Your task to perform on an android device: turn off improve location accuracy Image 0: 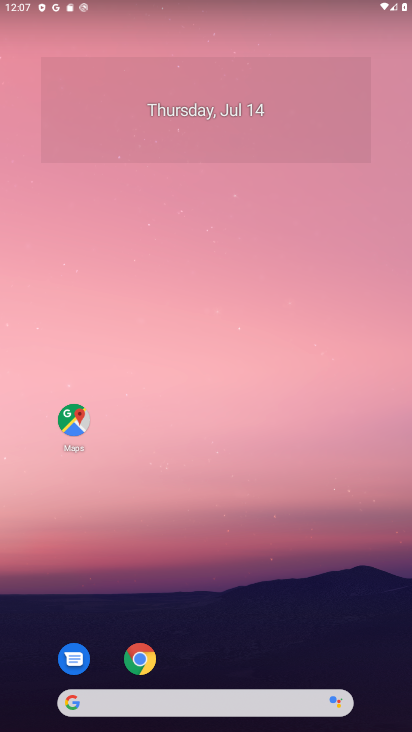
Step 0: drag from (33, 710) to (217, 172)
Your task to perform on an android device: turn off improve location accuracy Image 1: 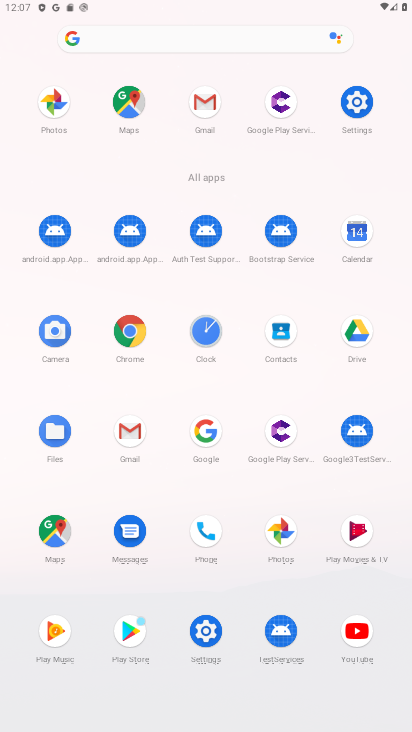
Step 1: click (207, 630)
Your task to perform on an android device: turn off improve location accuracy Image 2: 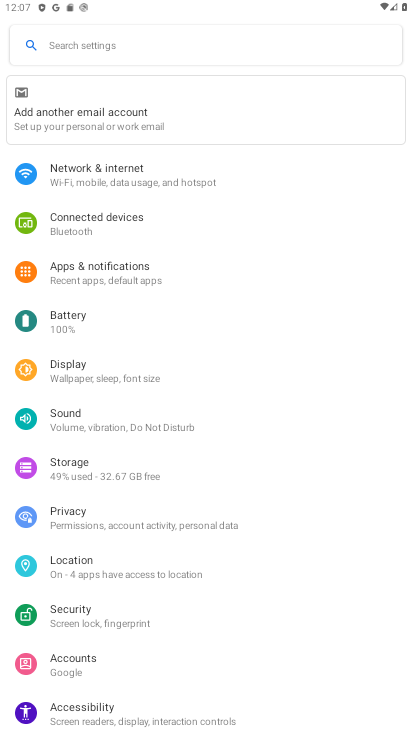
Step 2: click (90, 567)
Your task to perform on an android device: turn off improve location accuracy Image 3: 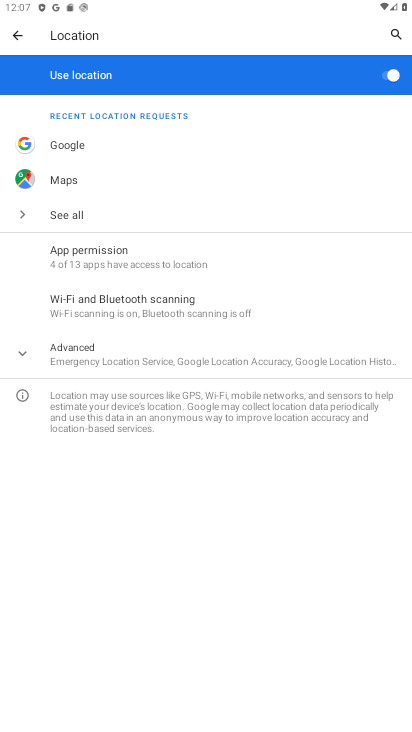
Step 3: click (62, 338)
Your task to perform on an android device: turn off improve location accuracy Image 4: 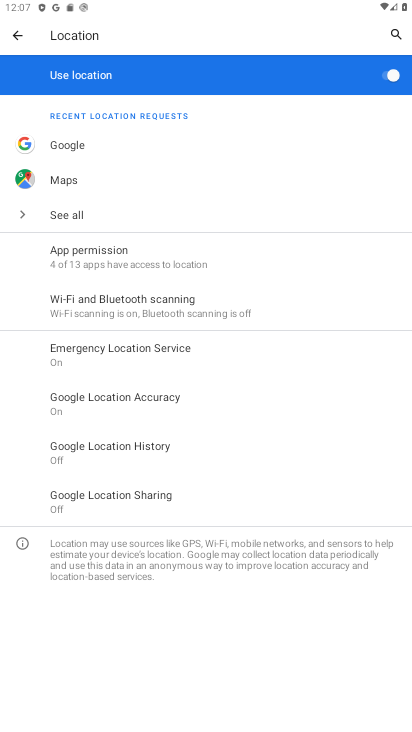
Step 4: click (114, 405)
Your task to perform on an android device: turn off improve location accuracy Image 5: 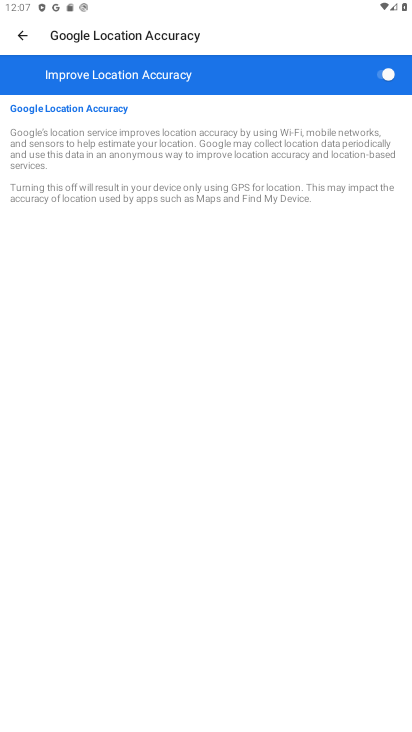
Step 5: click (392, 71)
Your task to perform on an android device: turn off improve location accuracy Image 6: 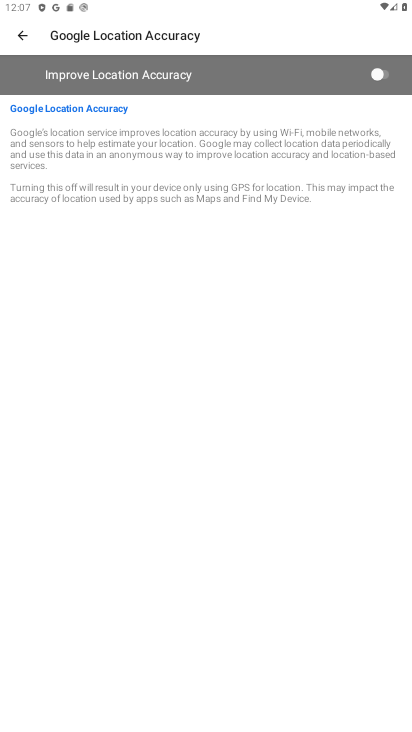
Step 6: task complete